Your task to perform on an android device: check the backup settings in the google photos Image 0: 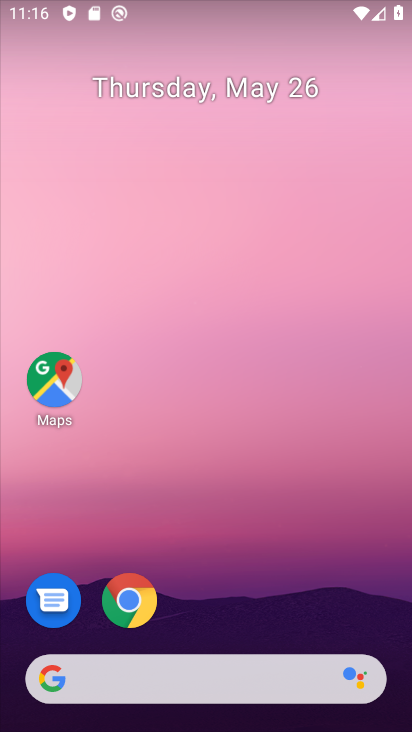
Step 0: click (143, 67)
Your task to perform on an android device: check the backup settings in the google photos Image 1: 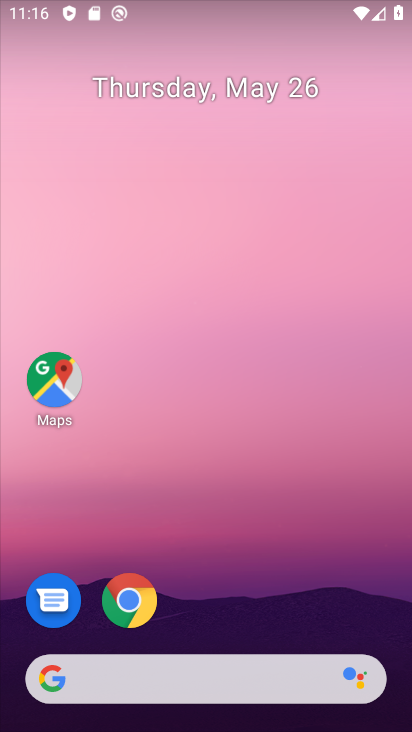
Step 1: drag from (191, 636) to (146, 54)
Your task to perform on an android device: check the backup settings in the google photos Image 2: 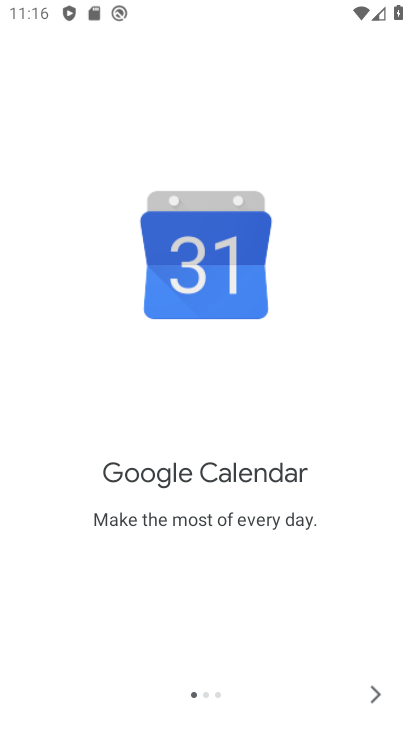
Step 2: click (378, 702)
Your task to perform on an android device: check the backup settings in the google photos Image 3: 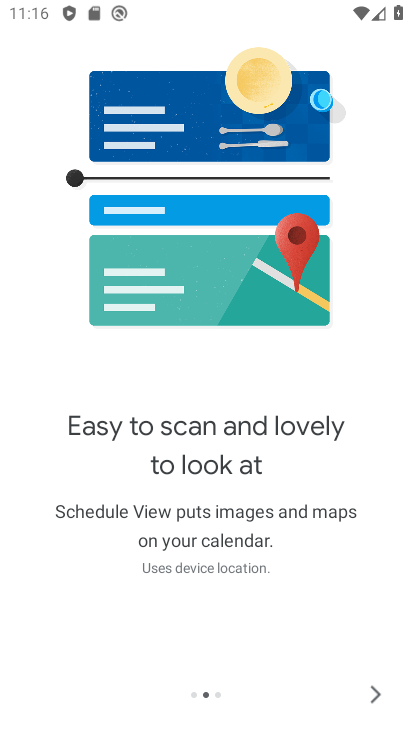
Step 3: click (378, 702)
Your task to perform on an android device: check the backup settings in the google photos Image 4: 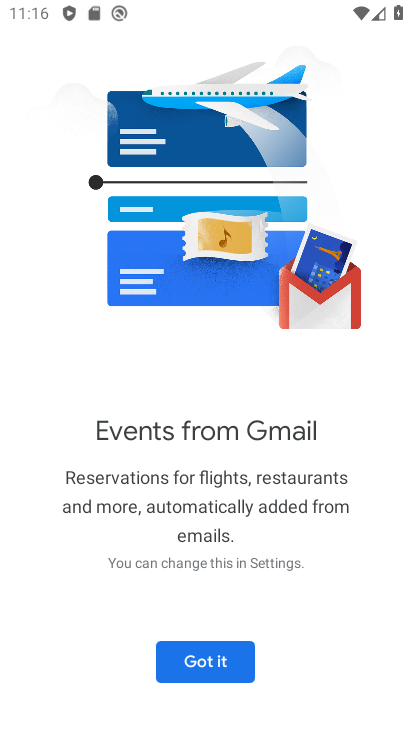
Step 4: click (378, 702)
Your task to perform on an android device: check the backup settings in the google photos Image 5: 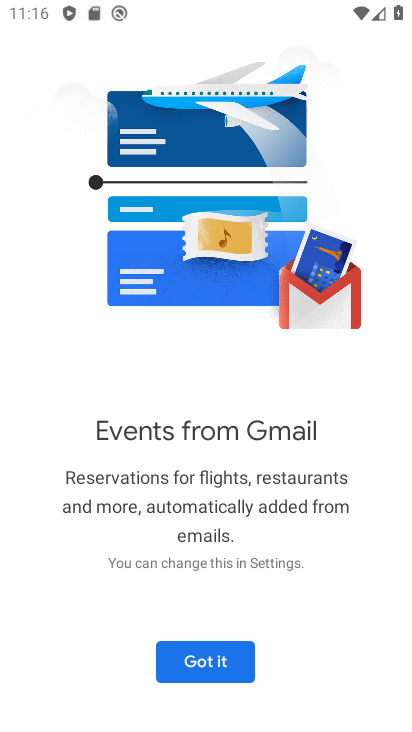
Step 5: click (237, 655)
Your task to perform on an android device: check the backup settings in the google photos Image 6: 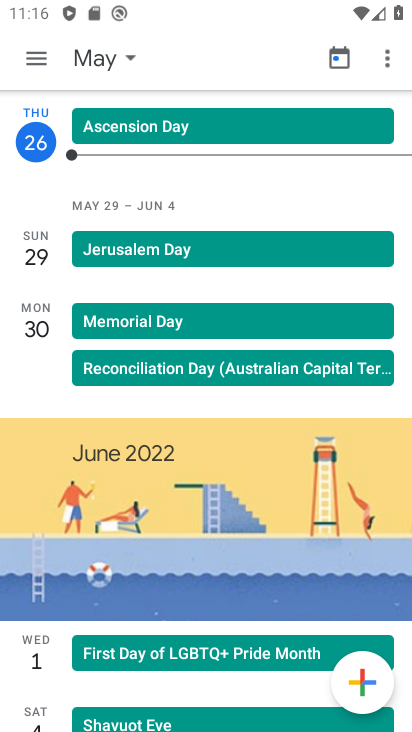
Step 6: press home button
Your task to perform on an android device: check the backup settings in the google photos Image 7: 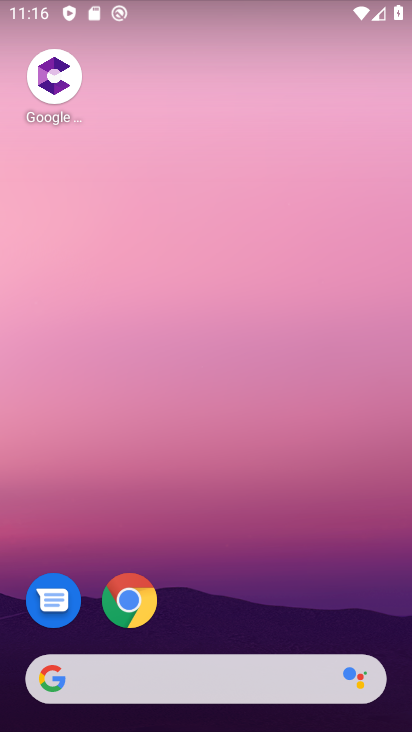
Step 7: drag from (196, 617) to (279, 20)
Your task to perform on an android device: check the backup settings in the google photos Image 8: 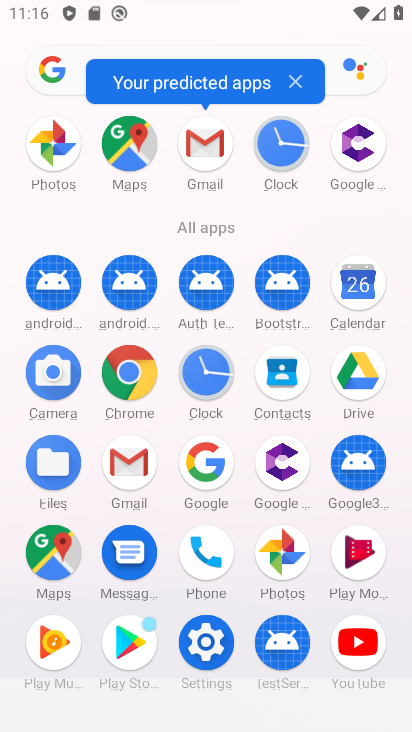
Step 8: click (57, 150)
Your task to perform on an android device: check the backup settings in the google photos Image 9: 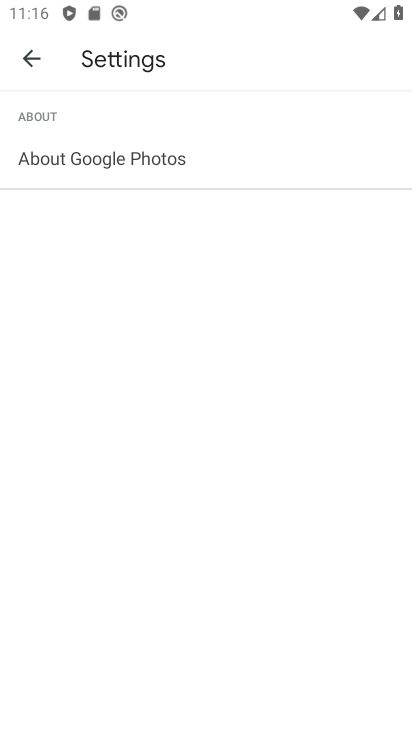
Step 9: click (36, 62)
Your task to perform on an android device: check the backup settings in the google photos Image 10: 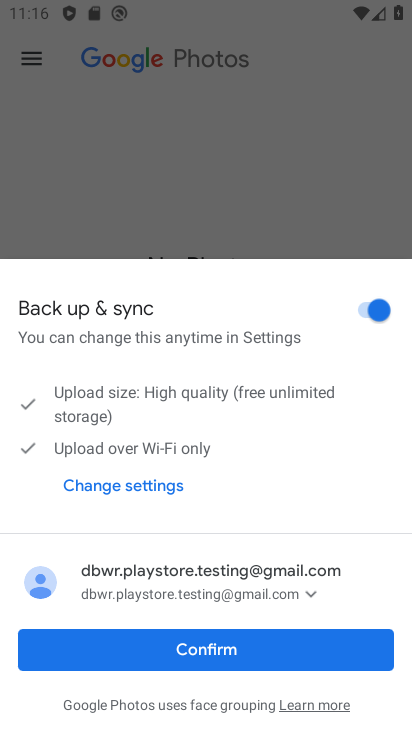
Step 10: click (127, 497)
Your task to perform on an android device: check the backup settings in the google photos Image 11: 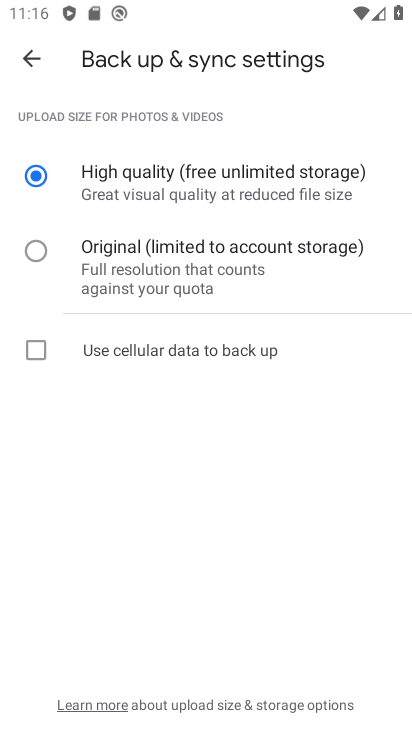
Step 11: click (144, 273)
Your task to perform on an android device: check the backup settings in the google photos Image 12: 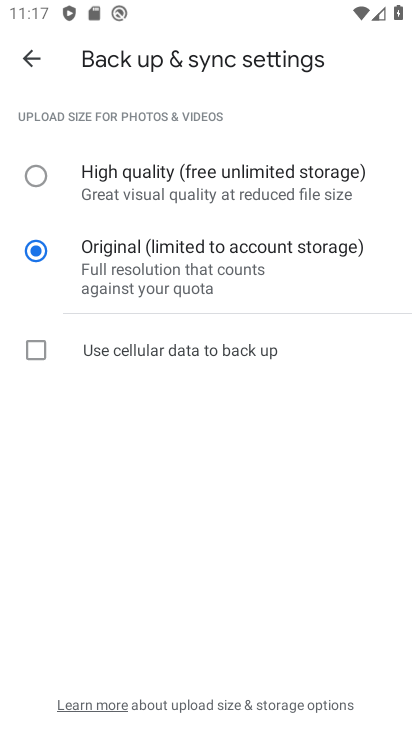
Step 12: task complete